Your task to perform on an android device: add a label to a message in the gmail app Image 0: 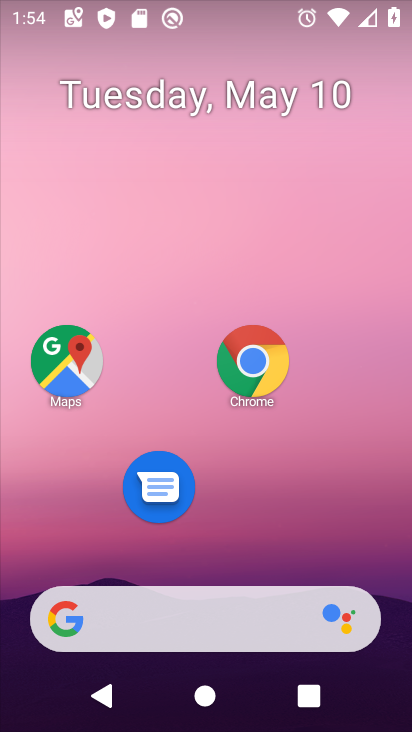
Step 0: drag from (335, 546) to (178, 115)
Your task to perform on an android device: add a label to a message in the gmail app Image 1: 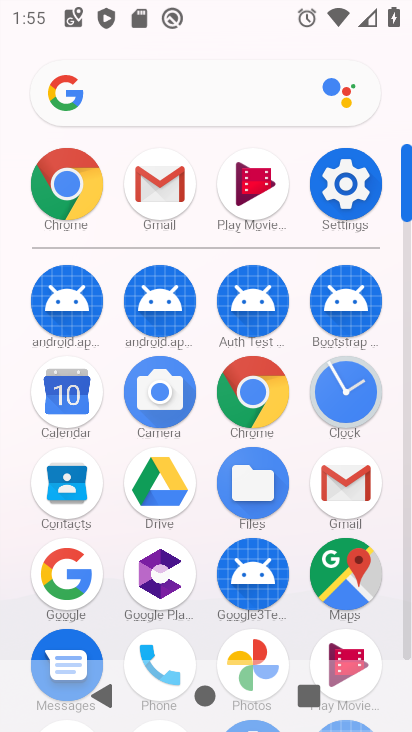
Step 1: click (162, 210)
Your task to perform on an android device: add a label to a message in the gmail app Image 2: 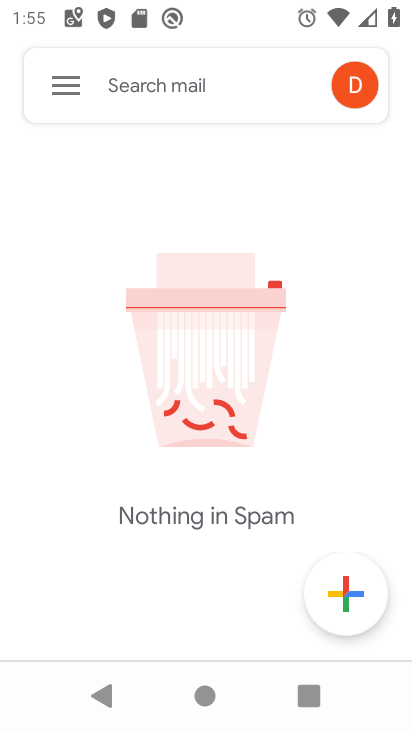
Step 2: click (44, 72)
Your task to perform on an android device: add a label to a message in the gmail app Image 3: 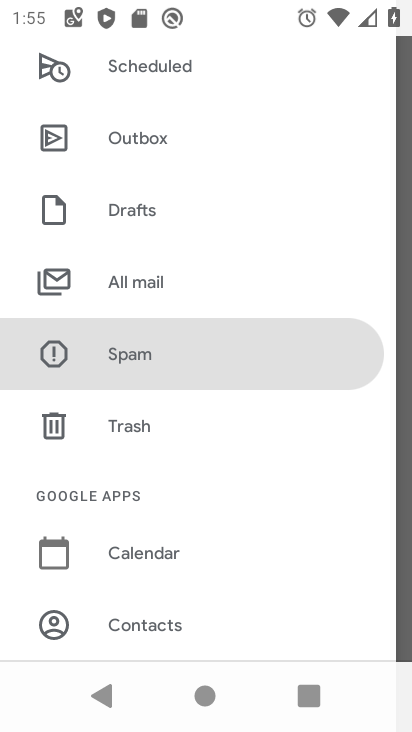
Step 3: click (76, 263)
Your task to perform on an android device: add a label to a message in the gmail app Image 4: 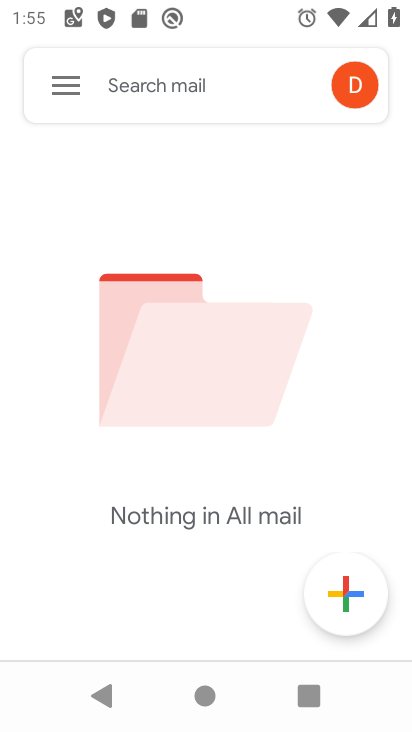
Step 4: task complete